Your task to perform on an android device: set an alarm Image 0: 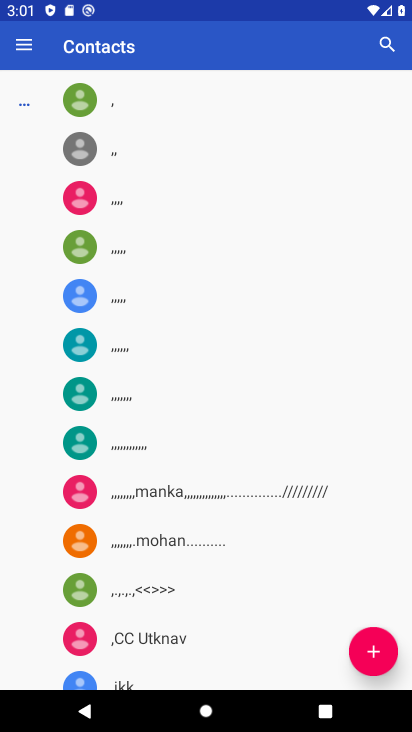
Step 0: press back button
Your task to perform on an android device: set an alarm Image 1: 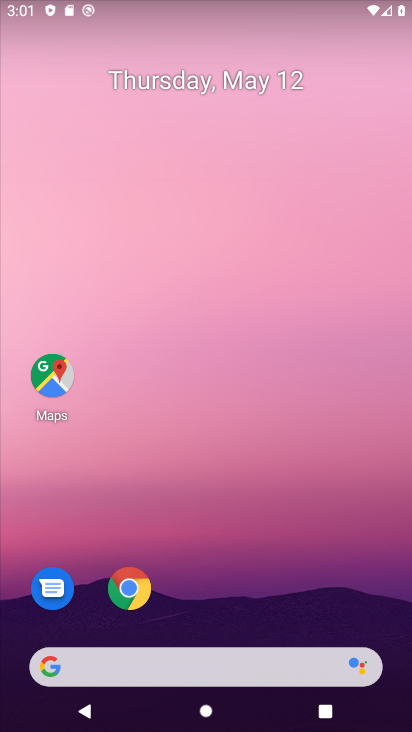
Step 1: drag from (221, 577) to (213, 76)
Your task to perform on an android device: set an alarm Image 2: 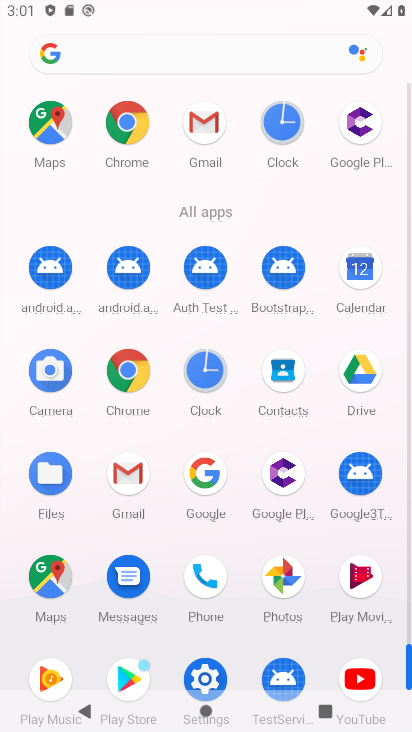
Step 2: drag from (14, 519) to (0, 301)
Your task to perform on an android device: set an alarm Image 3: 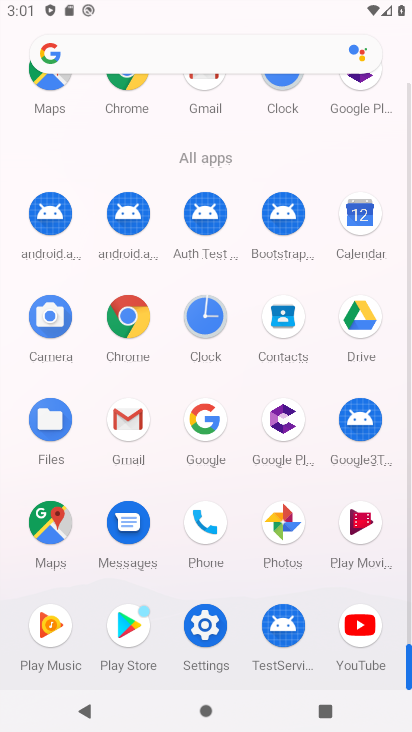
Step 3: drag from (18, 478) to (8, 299)
Your task to perform on an android device: set an alarm Image 4: 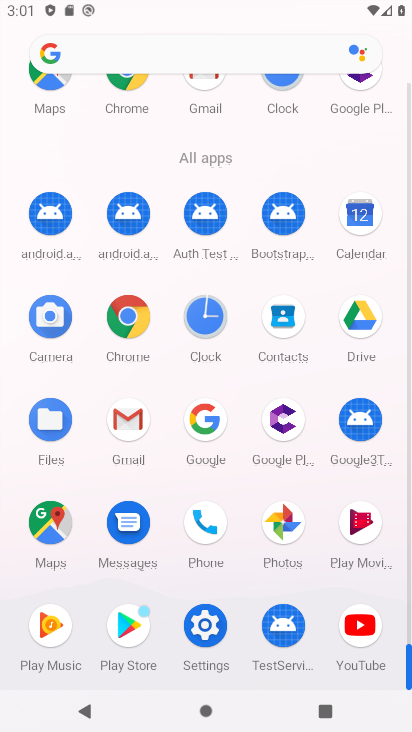
Step 4: click (202, 316)
Your task to perform on an android device: set an alarm Image 5: 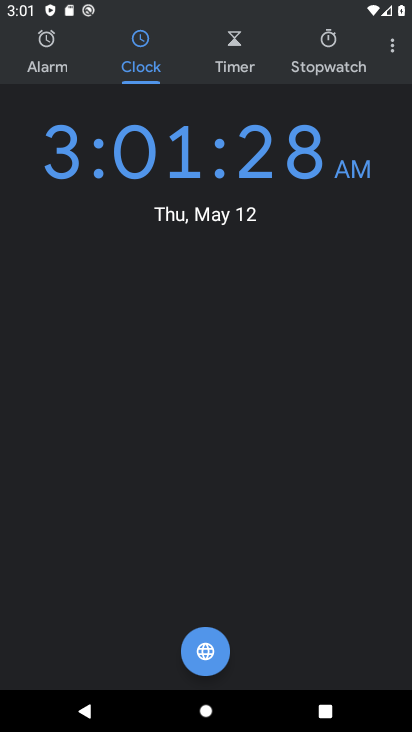
Step 5: click (46, 55)
Your task to perform on an android device: set an alarm Image 6: 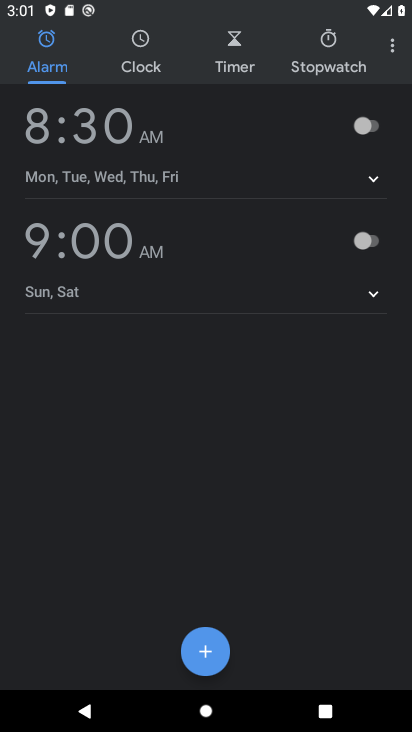
Step 6: click (197, 650)
Your task to perform on an android device: set an alarm Image 7: 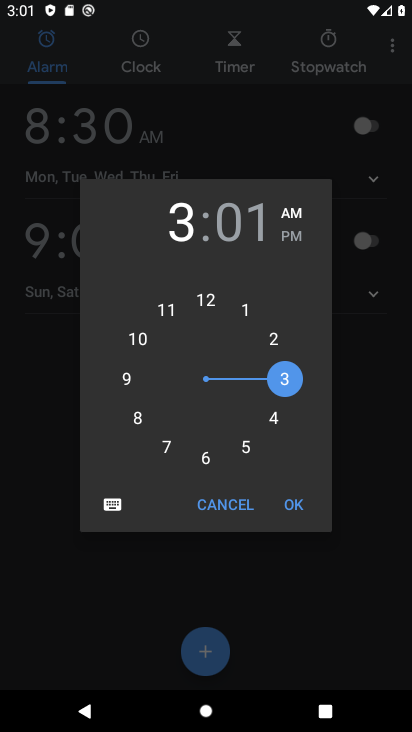
Step 7: click (250, 441)
Your task to perform on an android device: set an alarm Image 8: 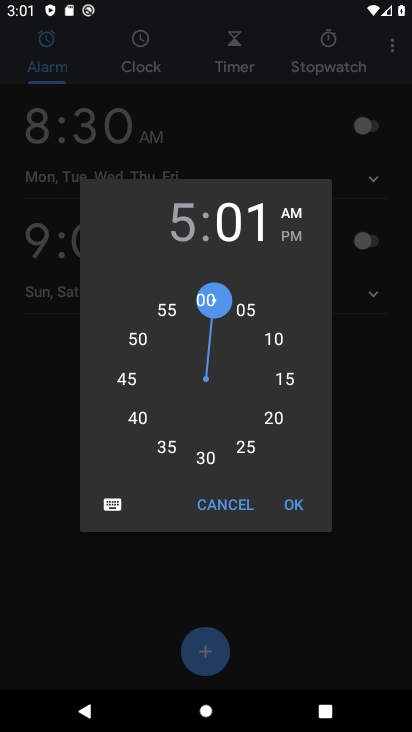
Step 8: click (275, 342)
Your task to perform on an android device: set an alarm Image 9: 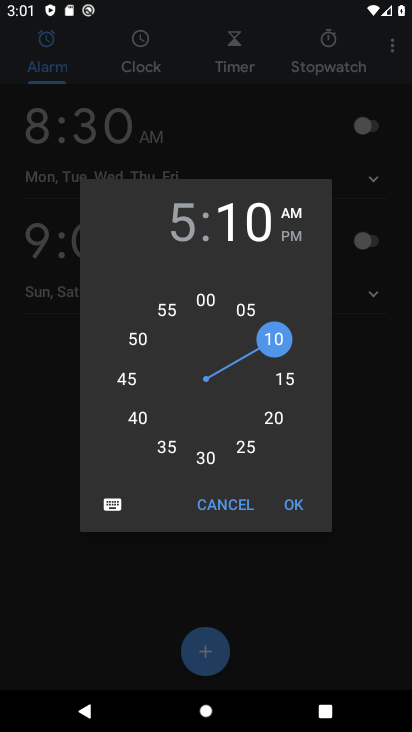
Step 9: click (281, 508)
Your task to perform on an android device: set an alarm Image 10: 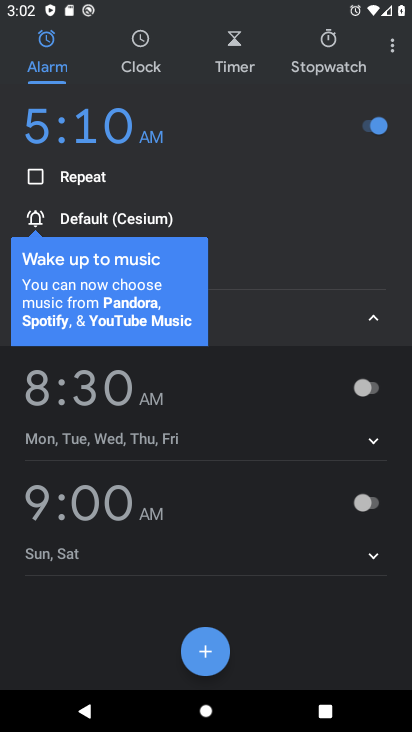
Step 10: task complete